Your task to perform on an android device: What's the weather going to be tomorrow? Image 0: 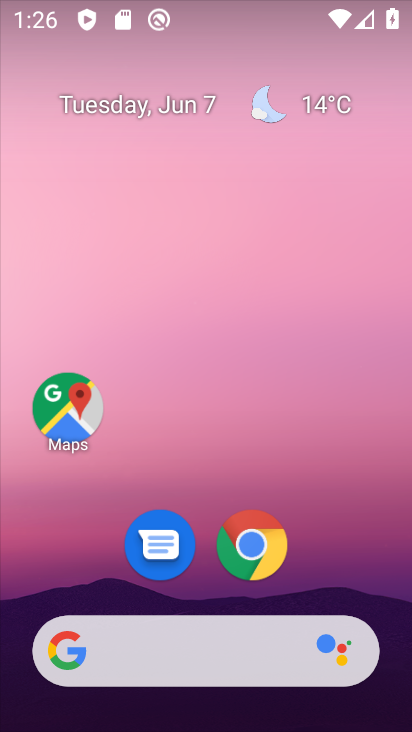
Step 0: task impossible